Your task to perform on an android device: check the backup settings in the google photos Image 0: 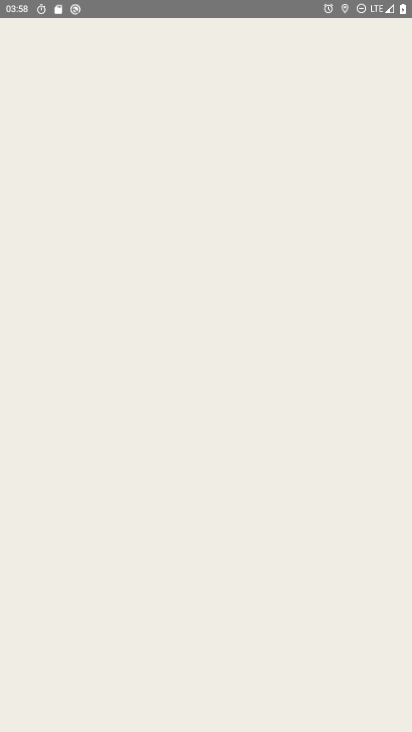
Step 0: press home button
Your task to perform on an android device: check the backup settings in the google photos Image 1: 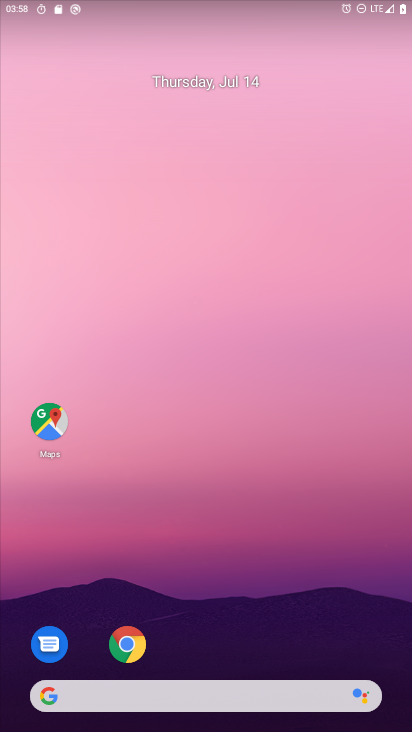
Step 1: drag from (316, 593) to (273, 86)
Your task to perform on an android device: check the backup settings in the google photos Image 2: 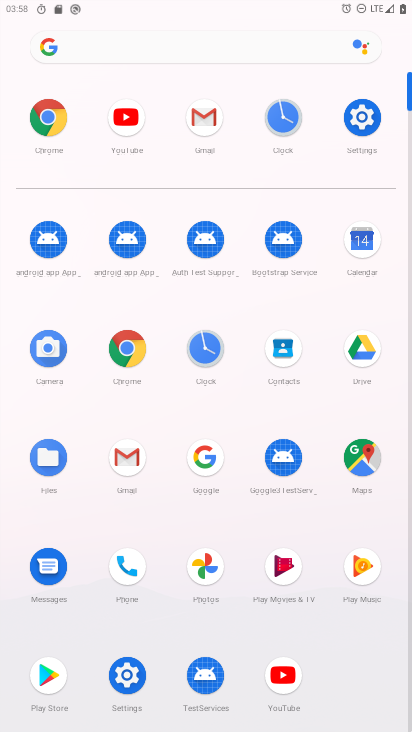
Step 2: click (204, 563)
Your task to perform on an android device: check the backup settings in the google photos Image 3: 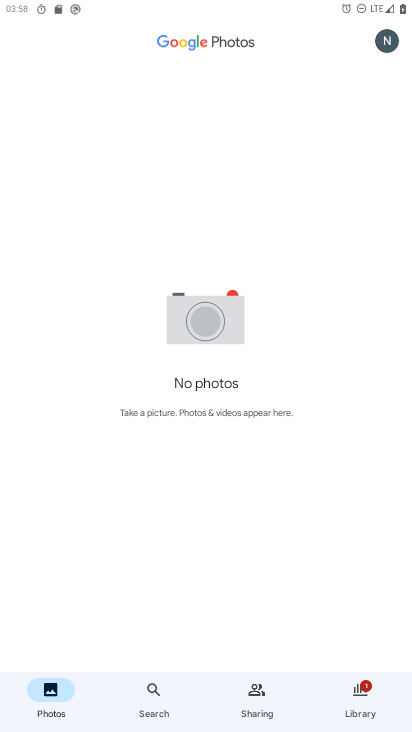
Step 3: click (390, 34)
Your task to perform on an android device: check the backup settings in the google photos Image 4: 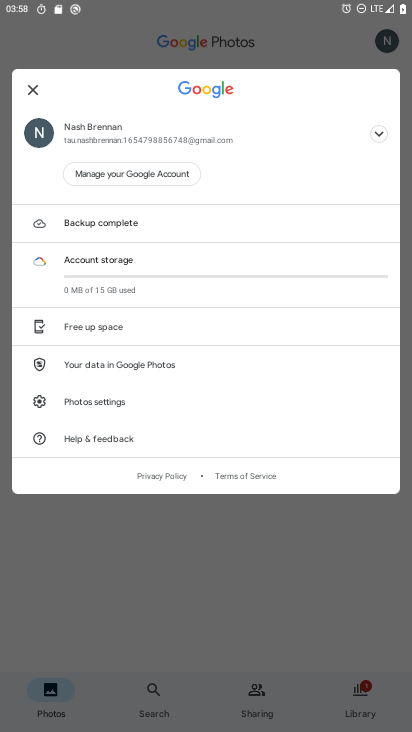
Step 4: click (108, 404)
Your task to perform on an android device: check the backup settings in the google photos Image 5: 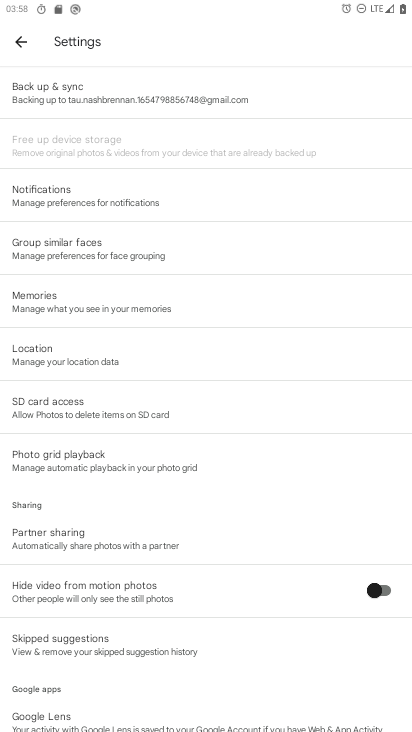
Step 5: click (244, 95)
Your task to perform on an android device: check the backup settings in the google photos Image 6: 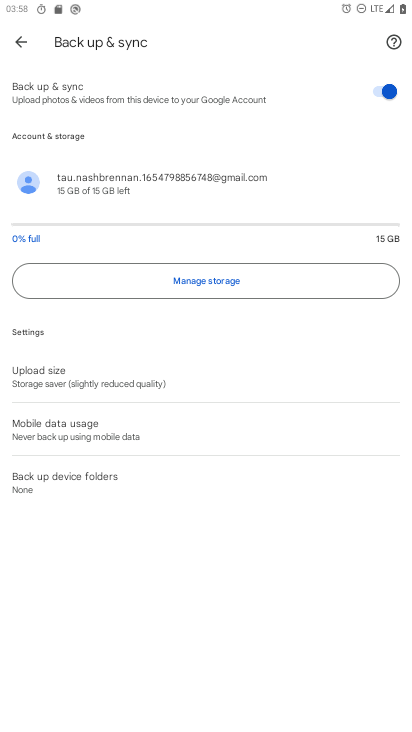
Step 6: task complete